Your task to perform on an android device: Open internet settings Image 0: 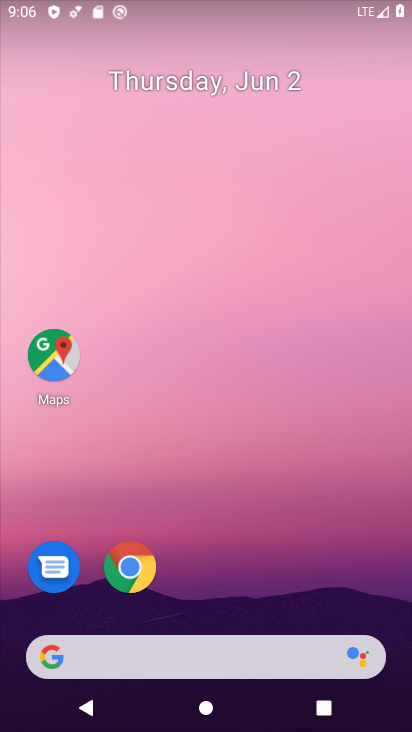
Step 0: drag from (323, 581) to (291, 95)
Your task to perform on an android device: Open internet settings Image 1: 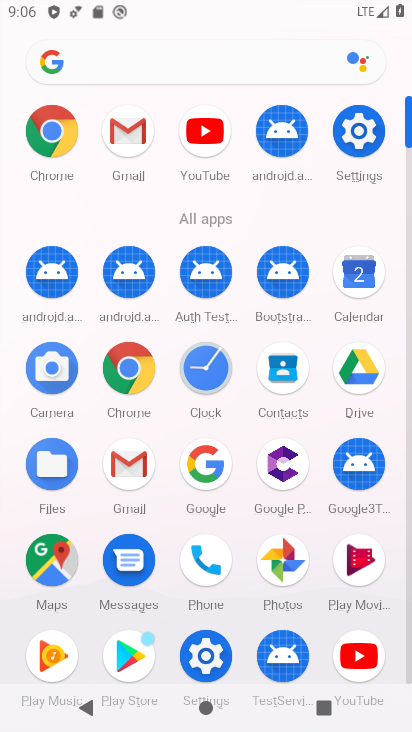
Step 1: click (209, 647)
Your task to perform on an android device: Open internet settings Image 2: 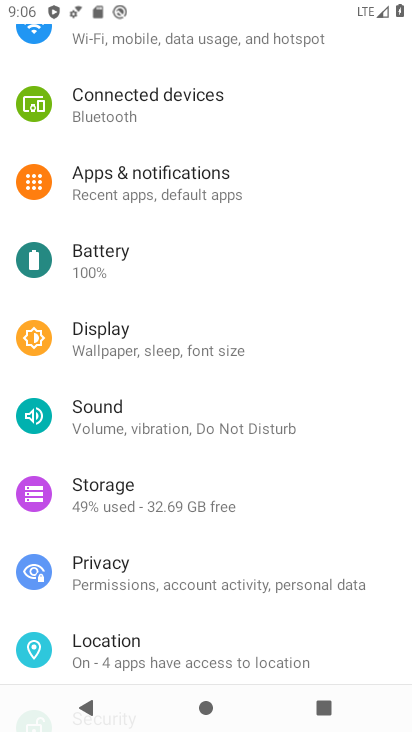
Step 2: drag from (190, 171) to (166, 599)
Your task to perform on an android device: Open internet settings Image 3: 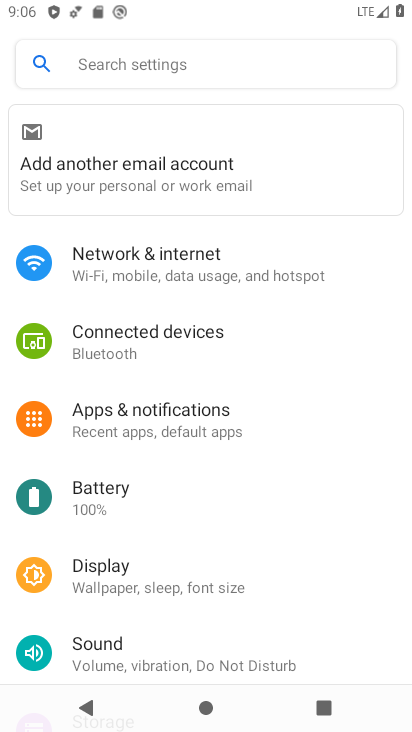
Step 3: click (195, 267)
Your task to perform on an android device: Open internet settings Image 4: 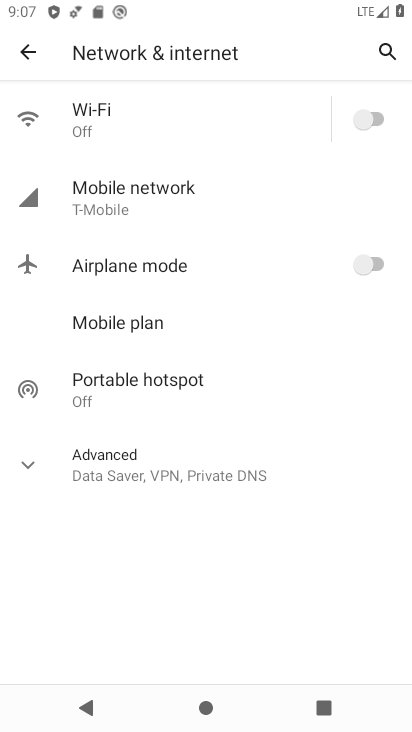
Step 4: task complete